Your task to perform on an android device: turn off sleep mode Image 0: 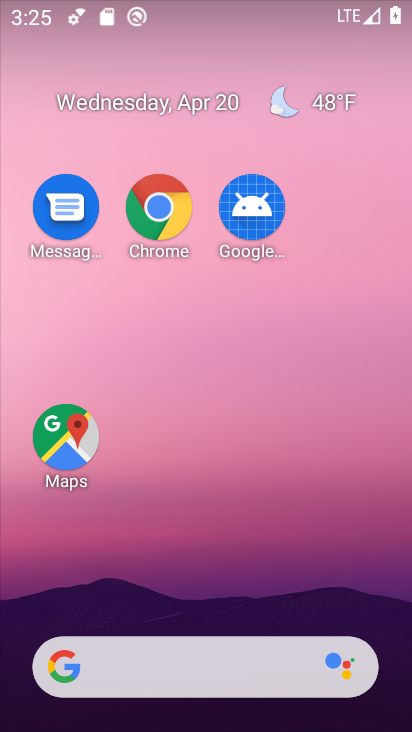
Step 0: drag from (345, 583) to (362, 42)
Your task to perform on an android device: turn off sleep mode Image 1: 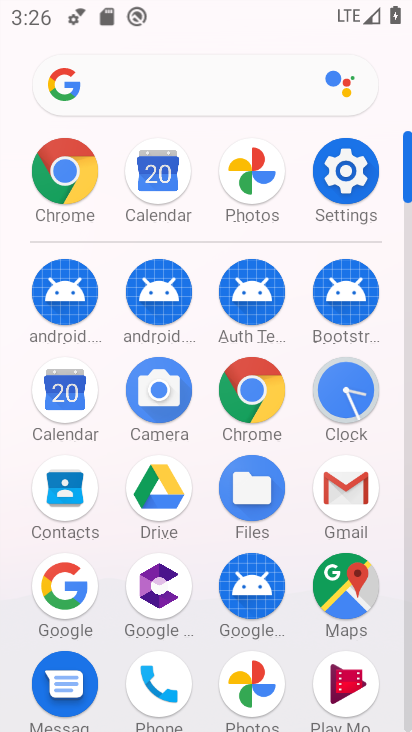
Step 1: click (323, 172)
Your task to perform on an android device: turn off sleep mode Image 2: 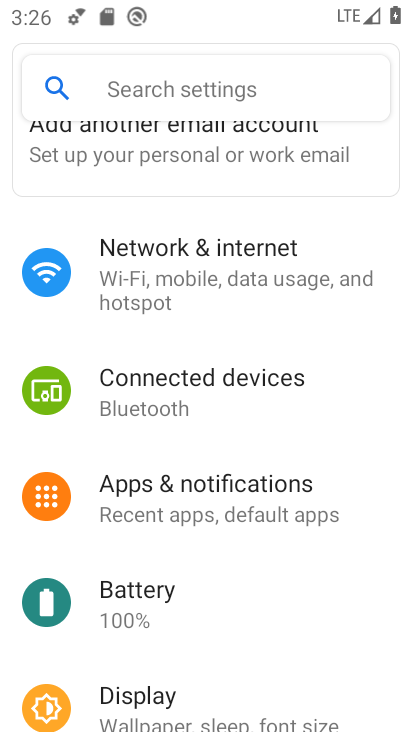
Step 2: drag from (216, 631) to (254, 310)
Your task to perform on an android device: turn off sleep mode Image 3: 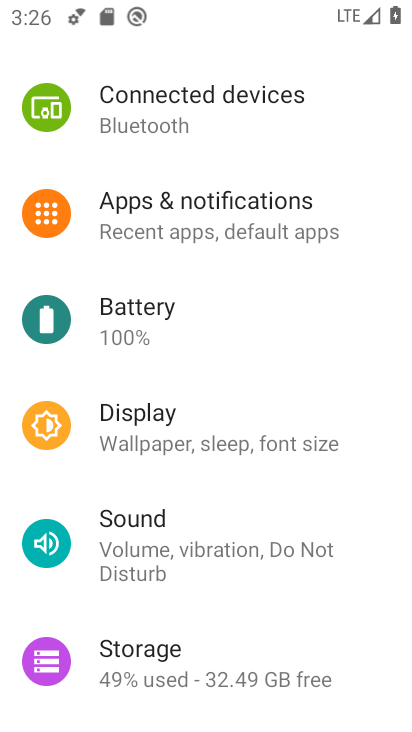
Step 3: click (243, 431)
Your task to perform on an android device: turn off sleep mode Image 4: 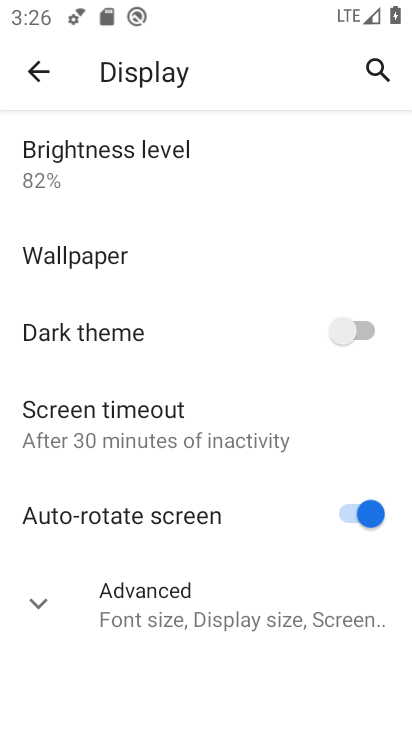
Step 4: click (188, 601)
Your task to perform on an android device: turn off sleep mode Image 5: 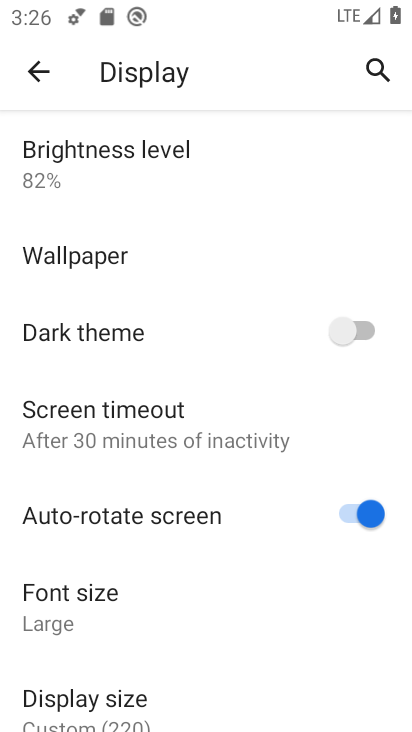
Step 5: task complete